Your task to perform on an android device: Check the weather Image 0: 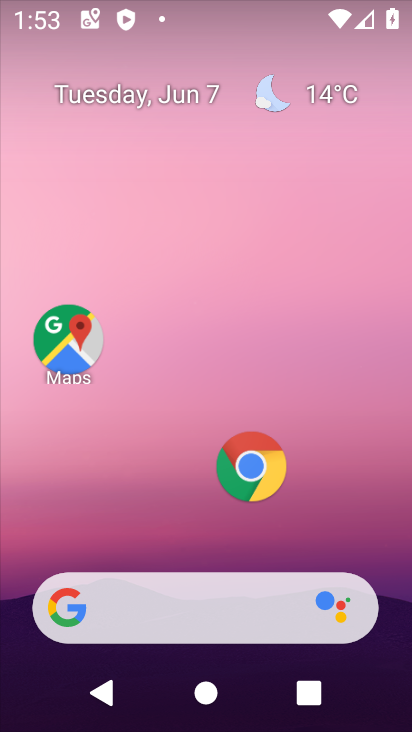
Step 0: click (163, 619)
Your task to perform on an android device: Check the weather Image 1: 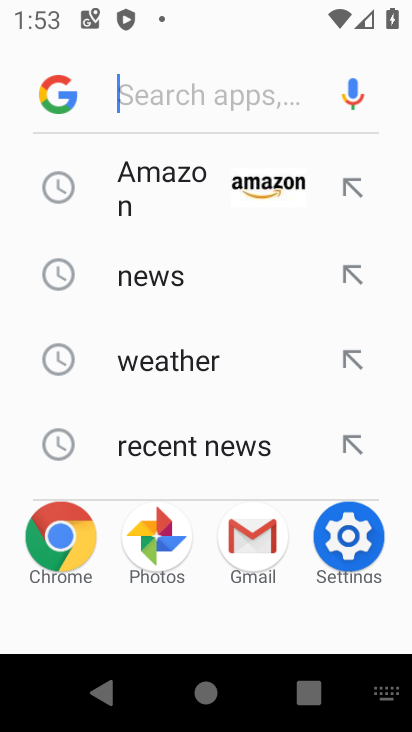
Step 1: click (173, 370)
Your task to perform on an android device: Check the weather Image 2: 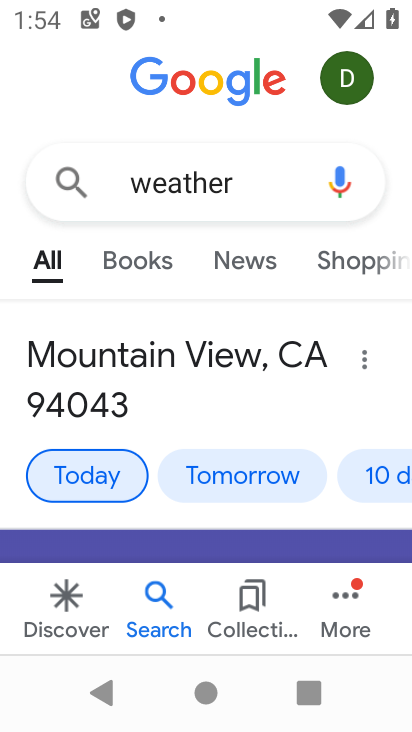
Step 2: task complete